Your task to perform on an android device: turn off wifi Image 0: 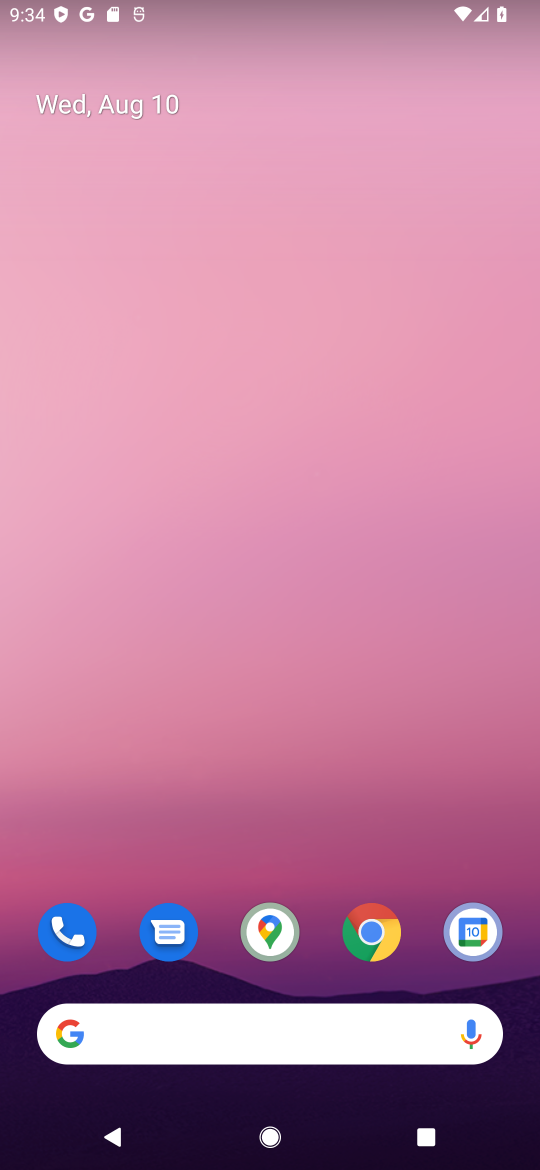
Step 0: drag from (294, 841) to (236, 78)
Your task to perform on an android device: turn off wifi Image 1: 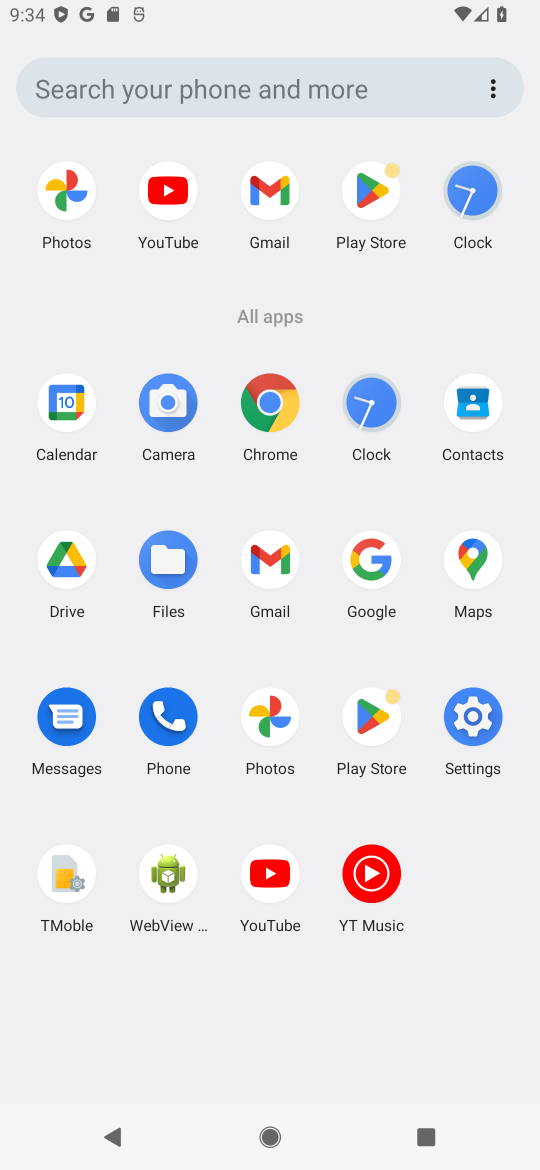
Step 1: click (473, 703)
Your task to perform on an android device: turn off wifi Image 2: 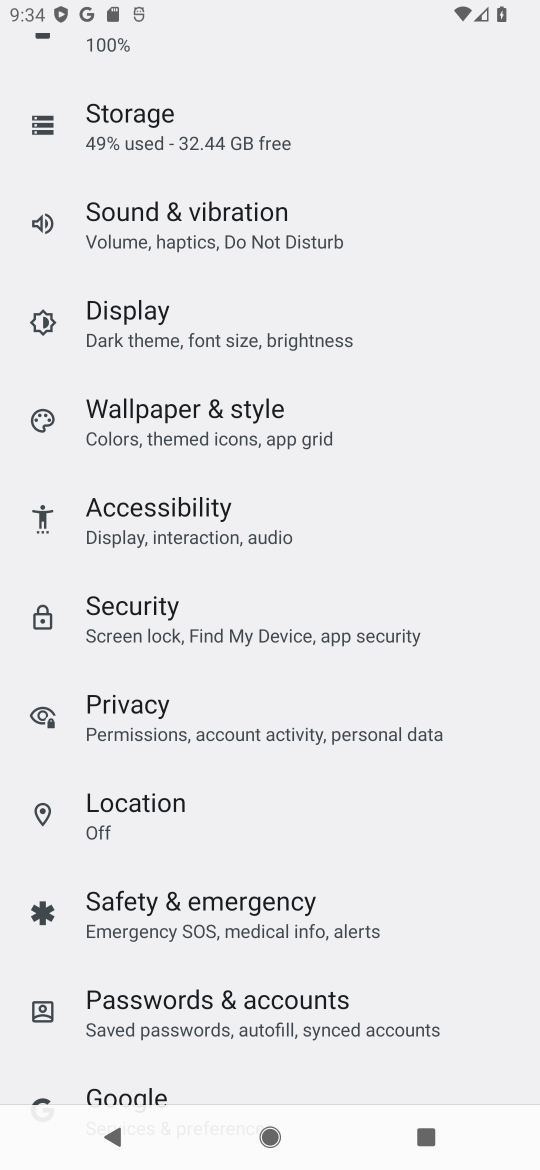
Step 2: drag from (317, 172) to (332, 614)
Your task to perform on an android device: turn off wifi Image 3: 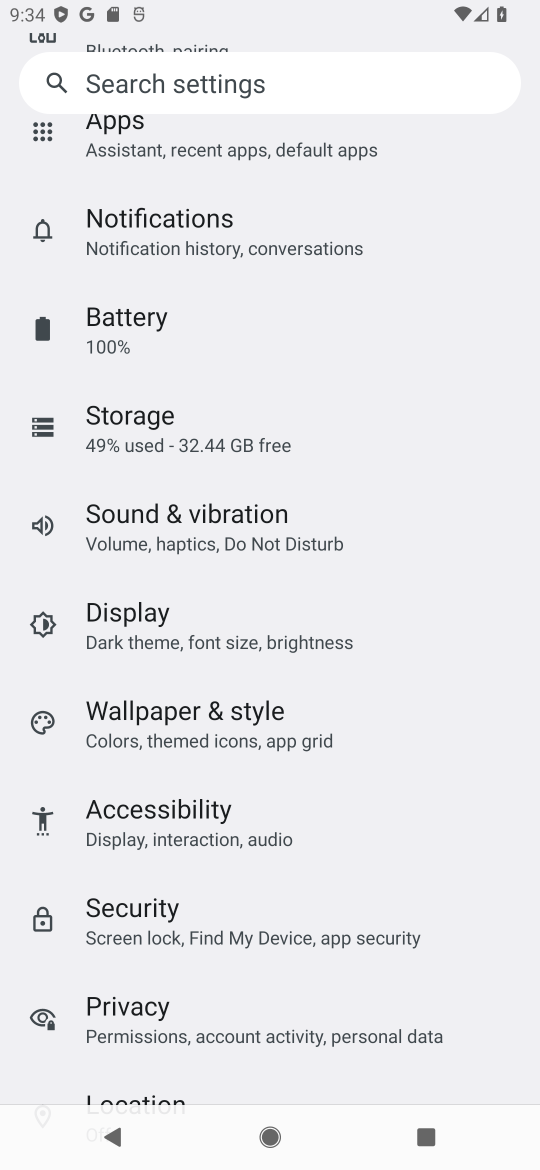
Step 3: drag from (331, 285) to (330, 736)
Your task to perform on an android device: turn off wifi Image 4: 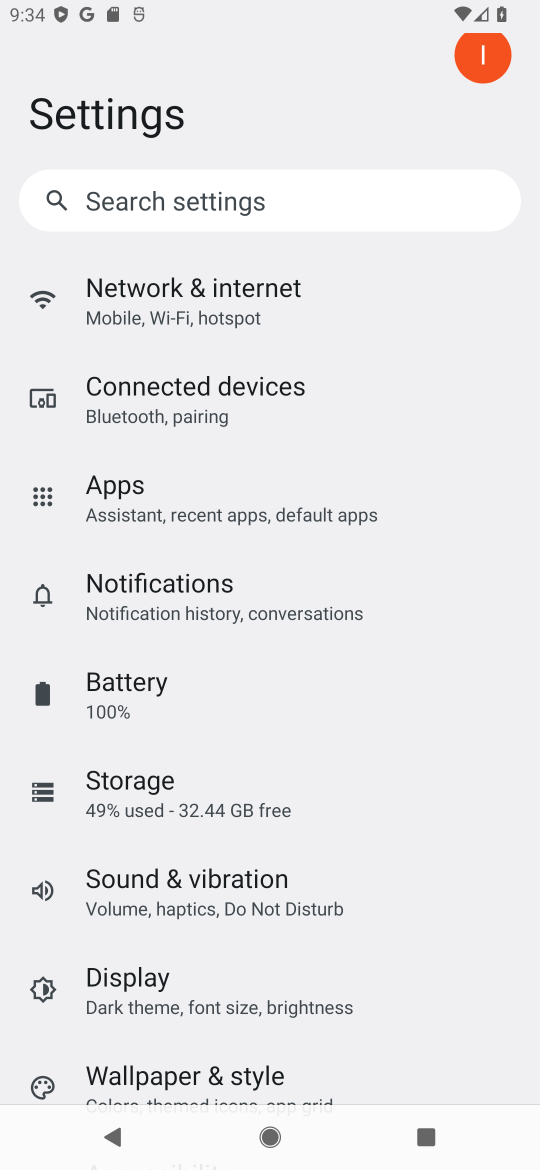
Step 4: drag from (335, 420) to (329, 1058)
Your task to perform on an android device: turn off wifi Image 5: 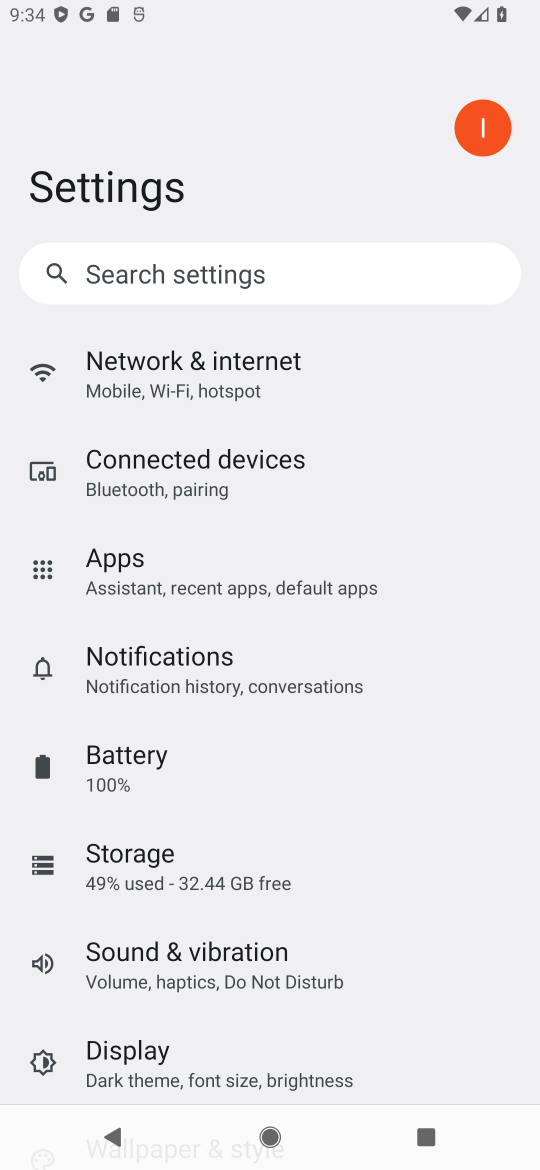
Step 5: click (177, 358)
Your task to perform on an android device: turn off wifi Image 6: 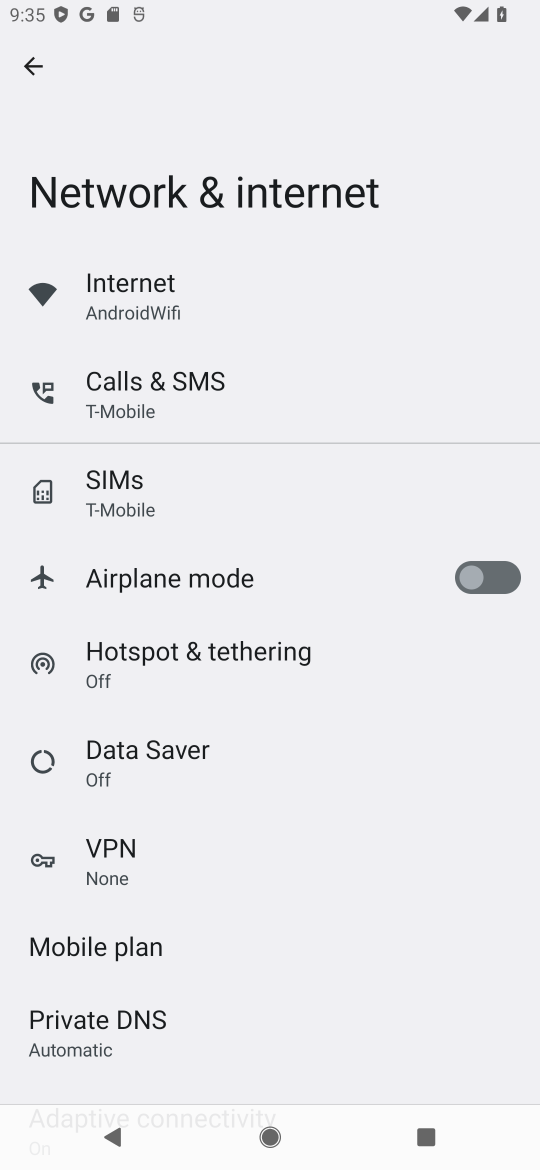
Step 6: click (137, 282)
Your task to perform on an android device: turn off wifi Image 7: 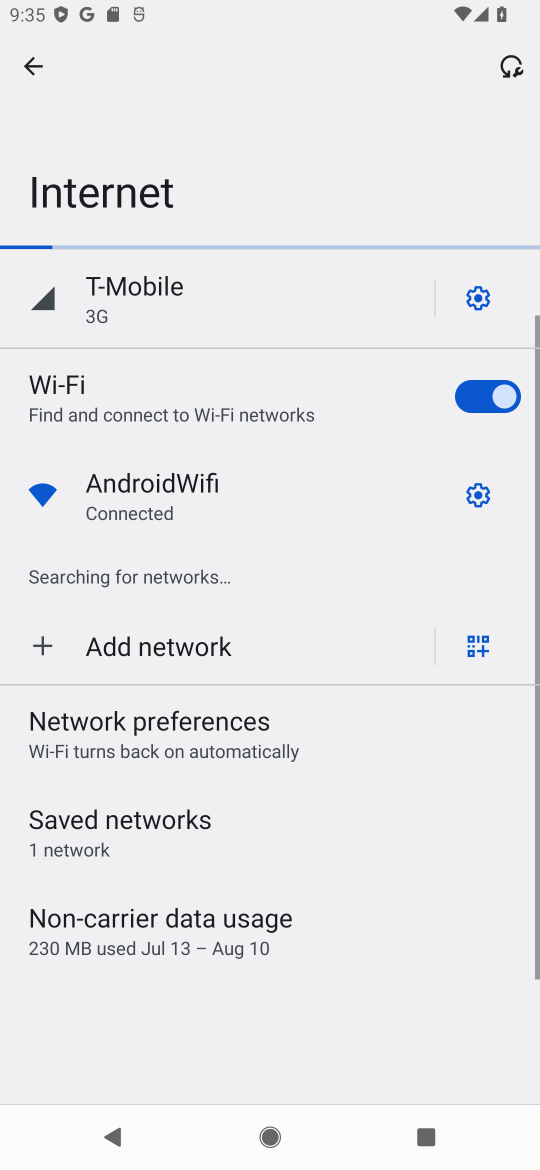
Step 7: click (494, 396)
Your task to perform on an android device: turn off wifi Image 8: 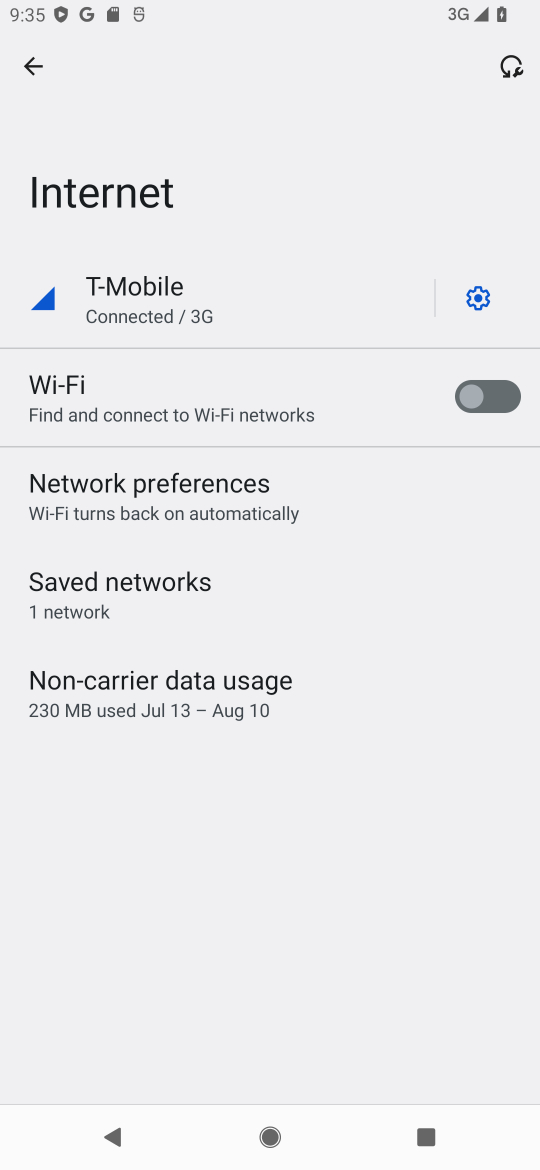
Step 8: task complete